Your task to perform on an android device: turn on notifications settings in the gmail app Image 0: 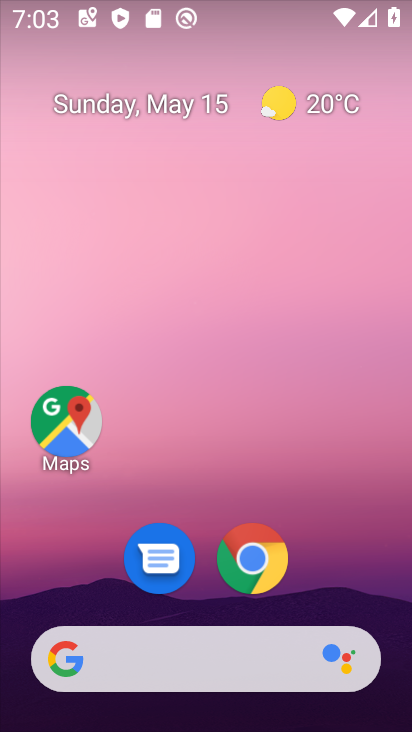
Step 0: drag from (317, 558) to (173, 0)
Your task to perform on an android device: turn on notifications settings in the gmail app Image 1: 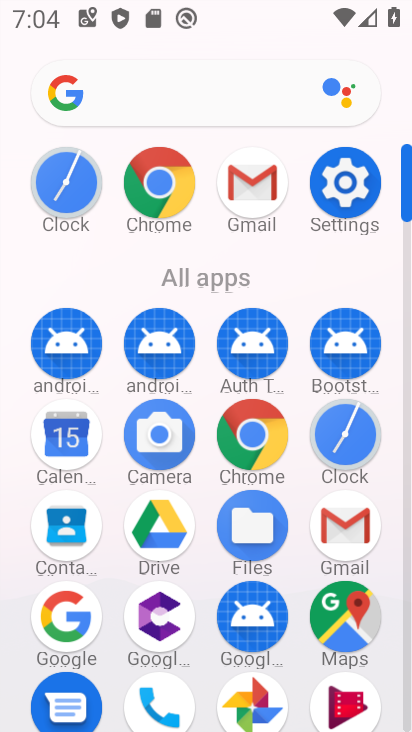
Step 1: click (252, 185)
Your task to perform on an android device: turn on notifications settings in the gmail app Image 2: 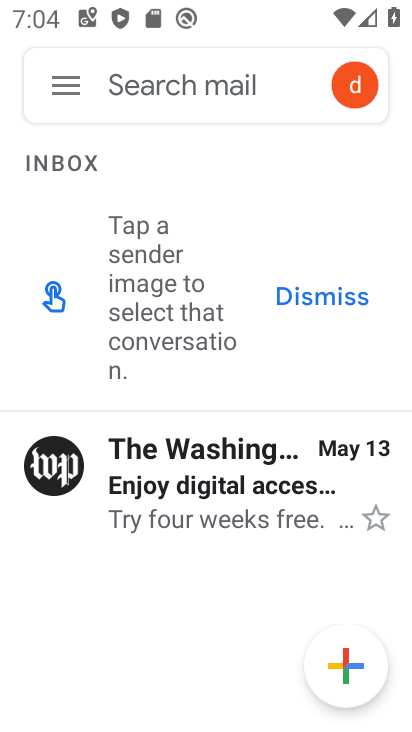
Step 2: click (64, 79)
Your task to perform on an android device: turn on notifications settings in the gmail app Image 3: 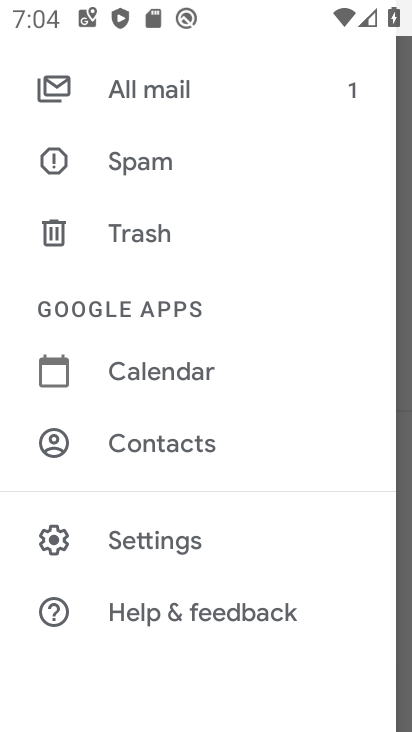
Step 3: click (165, 543)
Your task to perform on an android device: turn on notifications settings in the gmail app Image 4: 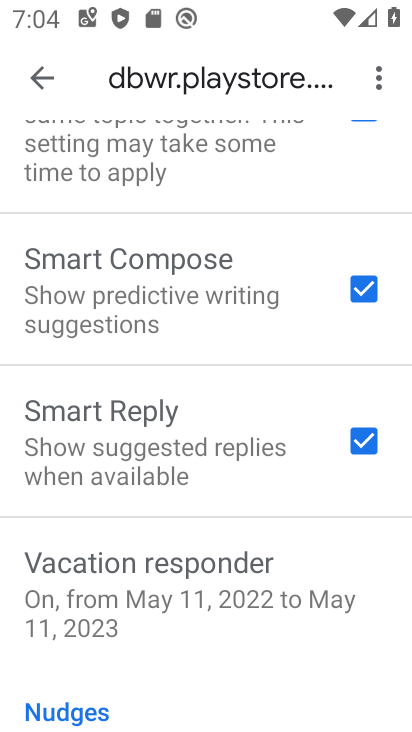
Step 4: drag from (289, 190) to (234, 730)
Your task to perform on an android device: turn on notifications settings in the gmail app Image 5: 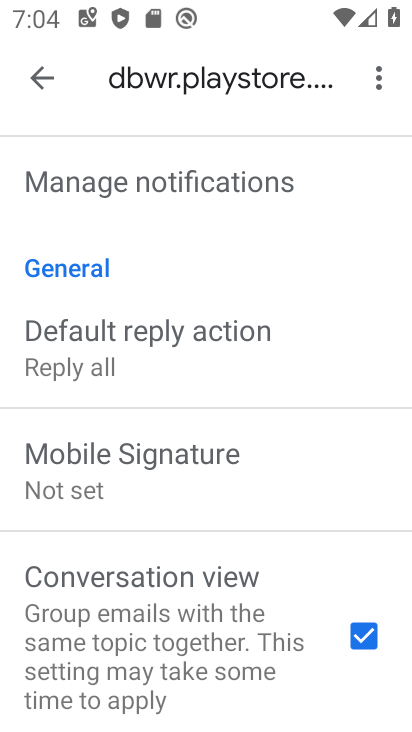
Step 5: drag from (211, 216) to (222, 666)
Your task to perform on an android device: turn on notifications settings in the gmail app Image 6: 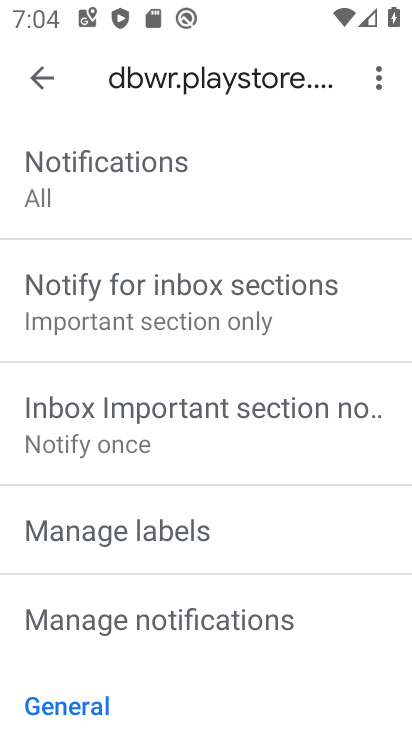
Step 6: drag from (141, 189) to (162, 568)
Your task to perform on an android device: turn on notifications settings in the gmail app Image 7: 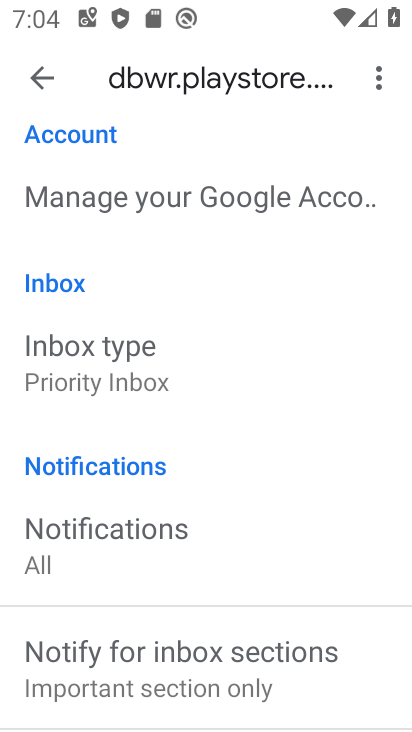
Step 7: click (45, 78)
Your task to perform on an android device: turn on notifications settings in the gmail app Image 8: 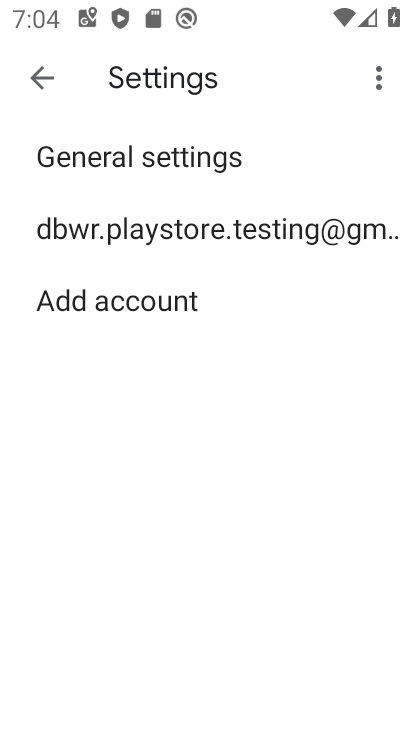
Step 8: click (131, 154)
Your task to perform on an android device: turn on notifications settings in the gmail app Image 9: 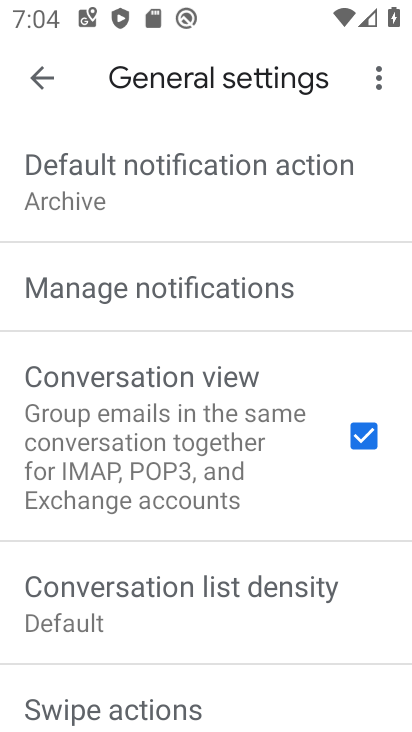
Step 9: click (145, 281)
Your task to perform on an android device: turn on notifications settings in the gmail app Image 10: 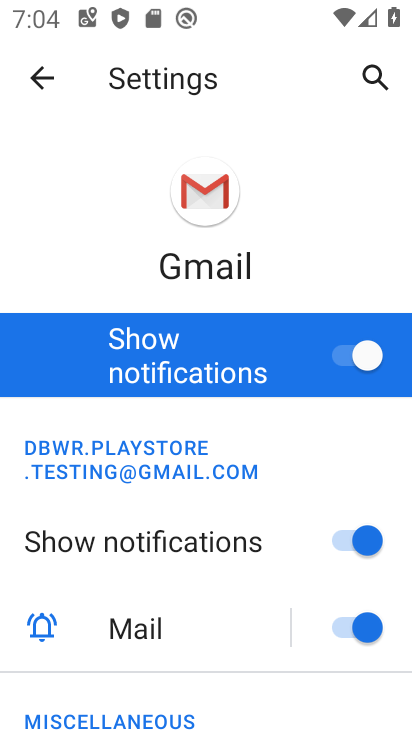
Step 10: click (367, 358)
Your task to perform on an android device: turn on notifications settings in the gmail app Image 11: 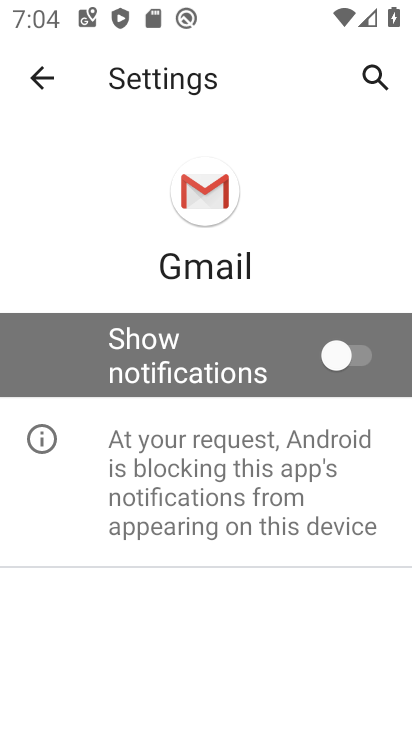
Step 11: task complete